Your task to perform on an android device: Open Chrome and go to settings Image 0: 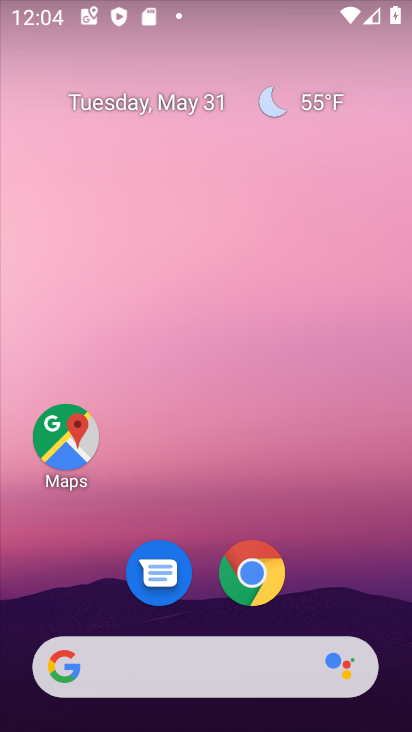
Step 0: click (251, 571)
Your task to perform on an android device: Open Chrome and go to settings Image 1: 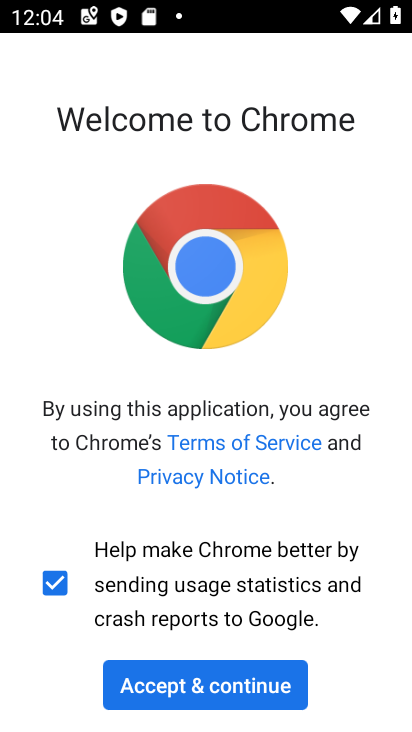
Step 1: click (207, 687)
Your task to perform on an android device: Open Chrome and go to settings Image 2: 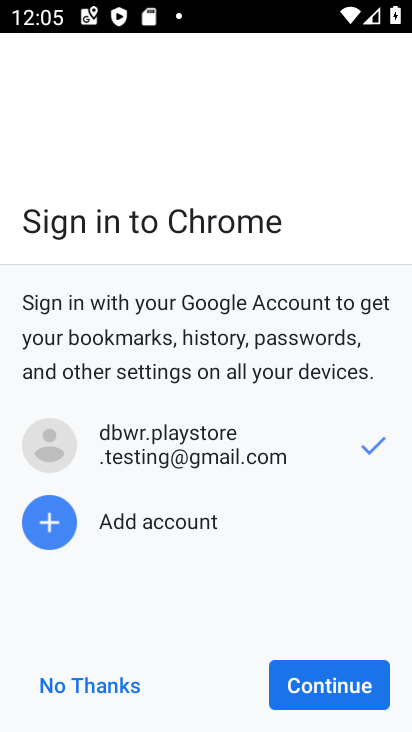
Step 2: click (335, 699)
Your task to perform on an android device: Open Chrome and go to settings Image 3: 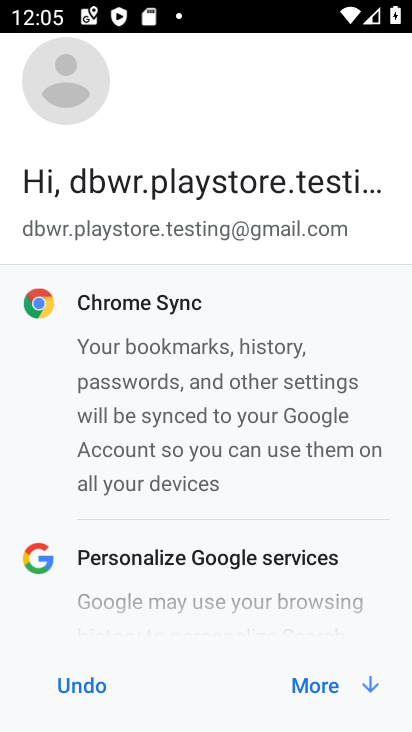
Step 3: click (345, 698)
Your task to perform on an android device: Open Chrome and go to settings Image 4: 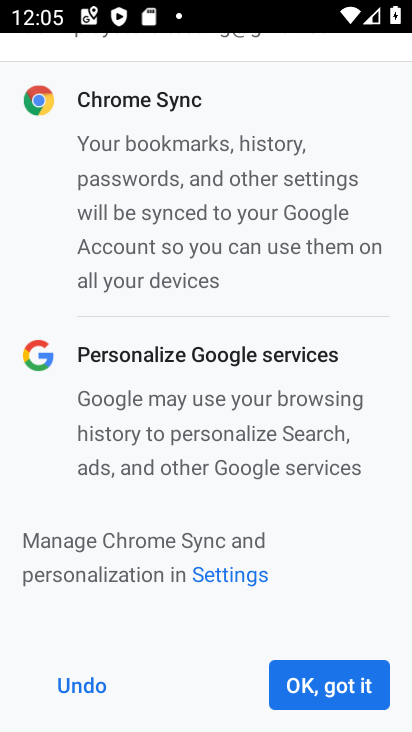
Step 4: click (322, 686)
Your task to perform on an android device: Open Chrome and go to settings Image 5: 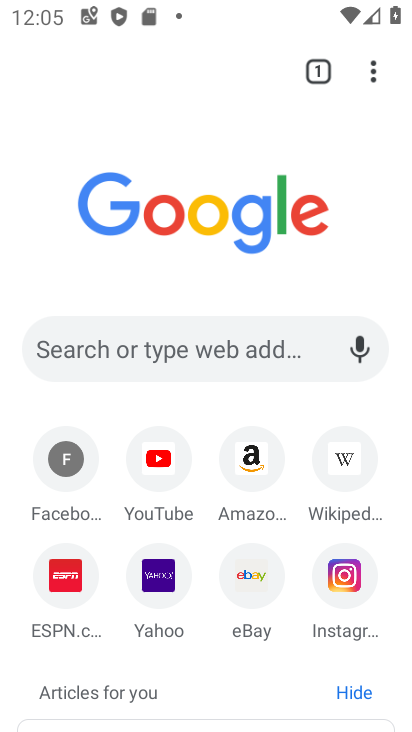
Step 5: click (369, 65)
Your task to perform on an android device: Open Chrome and go to settings Image 6: 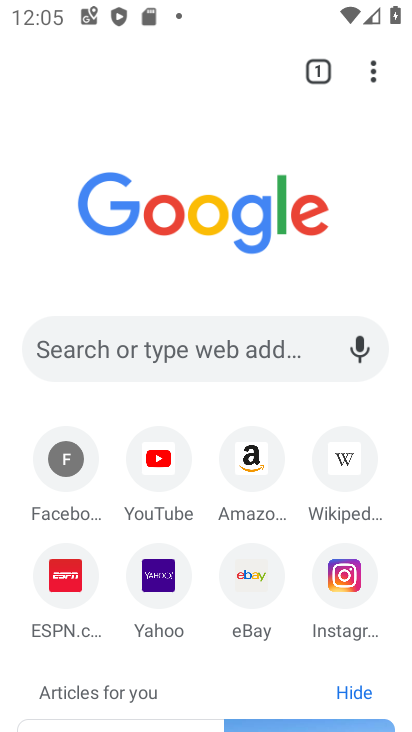
Step 6: click (368, 74)
Your task to perform on an android device: Open Chrome and go to settings Image 7: 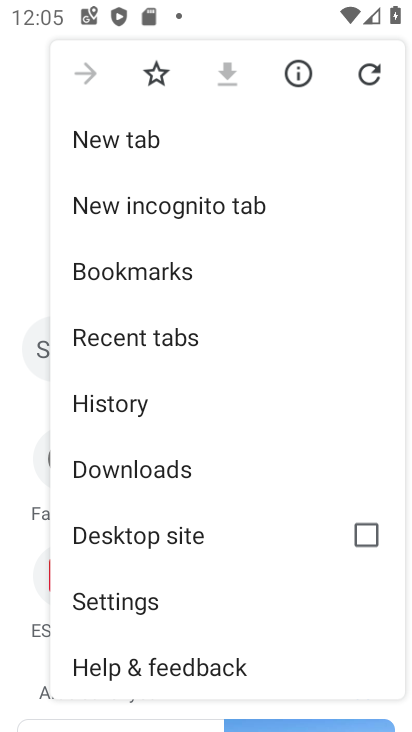
Step 7: click (107, 604)
Your task to perform on an android device: Open Chrome and go to settings Image 8: 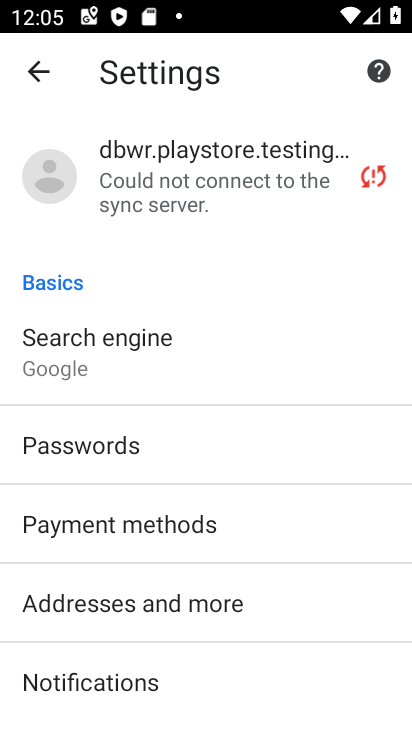
Step 8: task complete